Your task to perform on an android device: Go to sound settings Image 0: 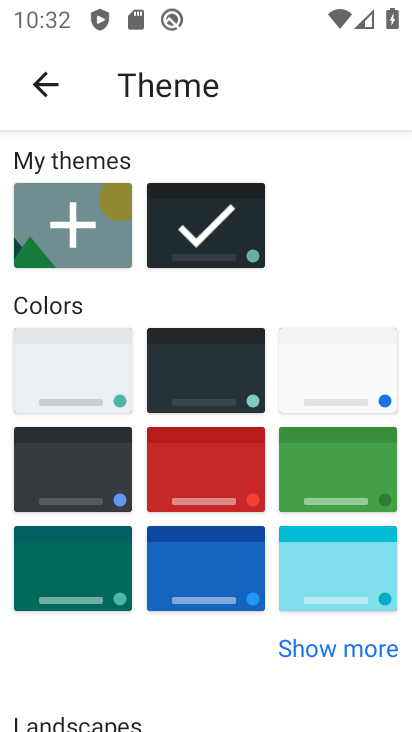
Step 0: task complete